Your task to perform on an android device: turn off picture-in-picture Image 0: 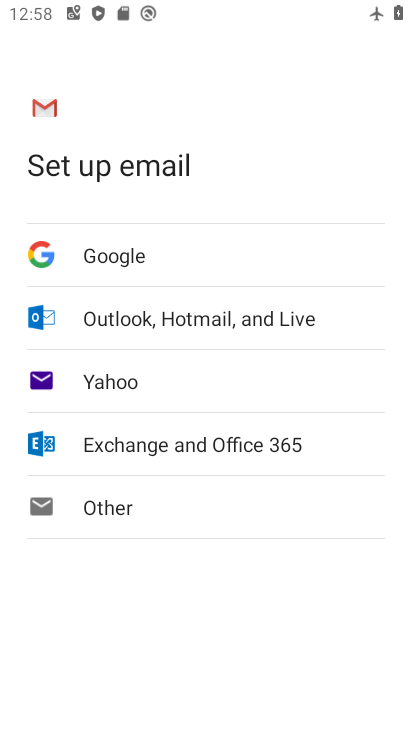
Step 0: press home button
Your task to perform on an android device: turn off picture-in-picture Image 1: 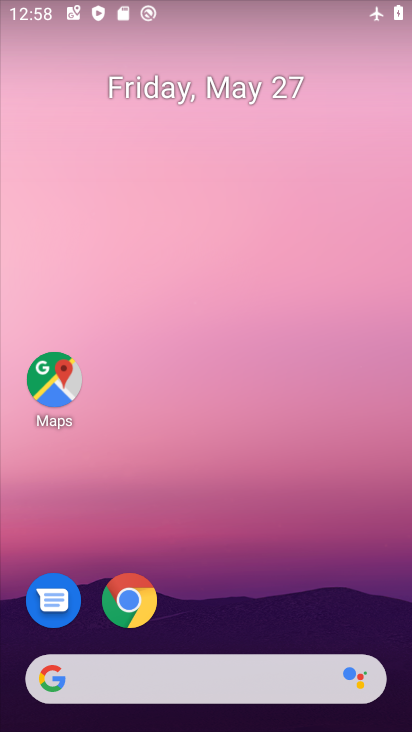
Step 1: drag from (298, 490) to (324, 13)
Your task to perform on an android device: turn off picture-in-picture Image 2: 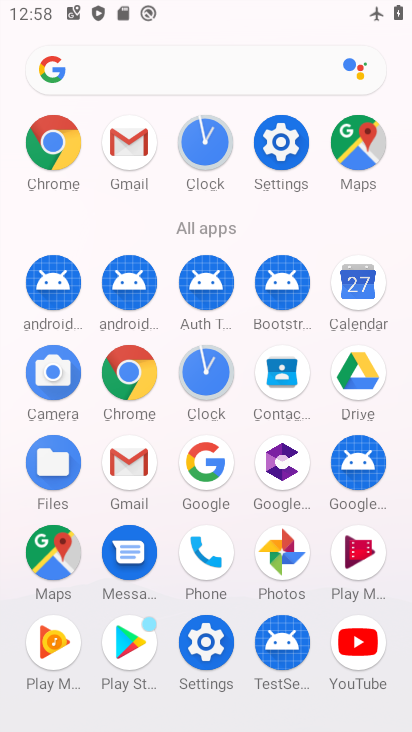
Step 2: click (276, 139)
Your task to perform on an android device: turn off picture-in-picture Image 3: 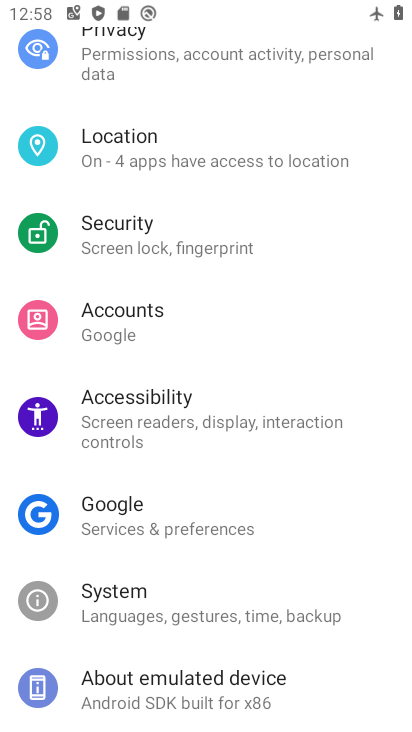
Step 3: task complete